Your task to perform on an android device: turn on priority inbox in the gmail app Image 0: 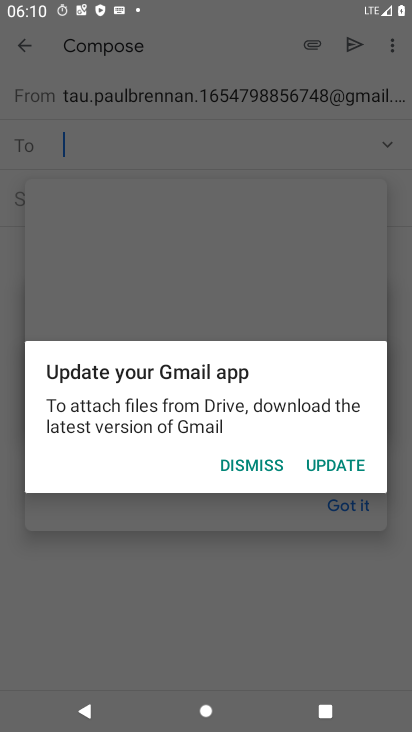
Step 0: press home button
Your task to perform on an android device: turn on priority inbox in the gmail app Image 1: 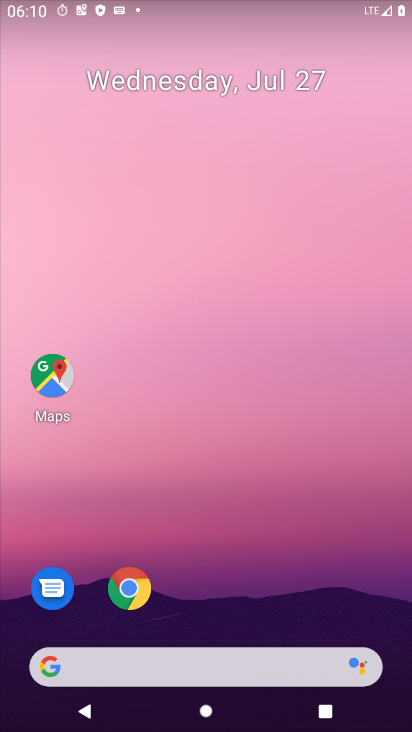
Step 1: drag from (163, 592) to (192, 22)
Your task to perform on an android device: turn on priority inbox in the gmail app Image 2: 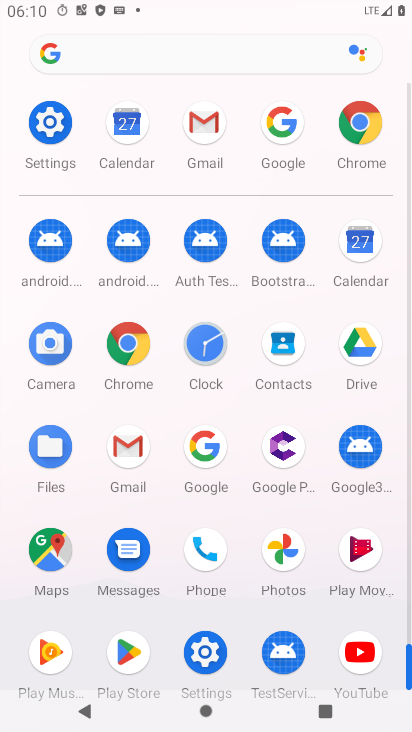
Step 2: click (129, 439)
Your task to perform on an android device: turn on priority inbox in the gmail app Image 3: 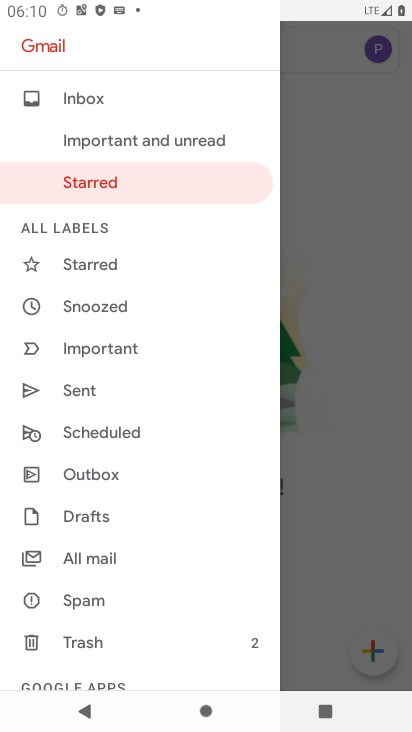
Step 3: drag from (137, 652) to (201, 186)
Your task to perform on an android device: turn on priority inbox in the gmail app Image 4: 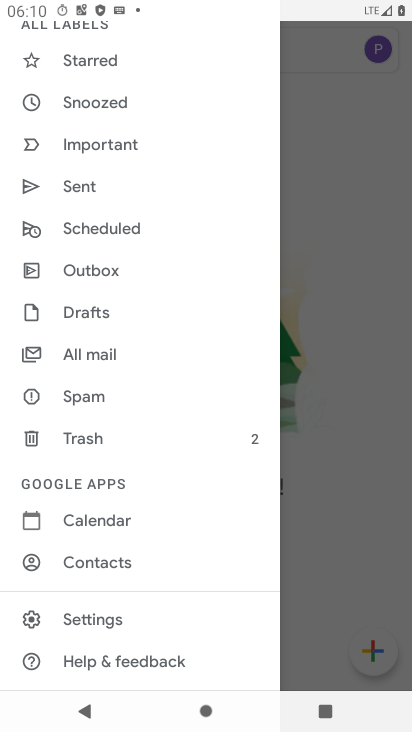
Step 4: click (105, 614)
Your task to perform on an android device: turn on priority inbox in the gmail app Image 5: 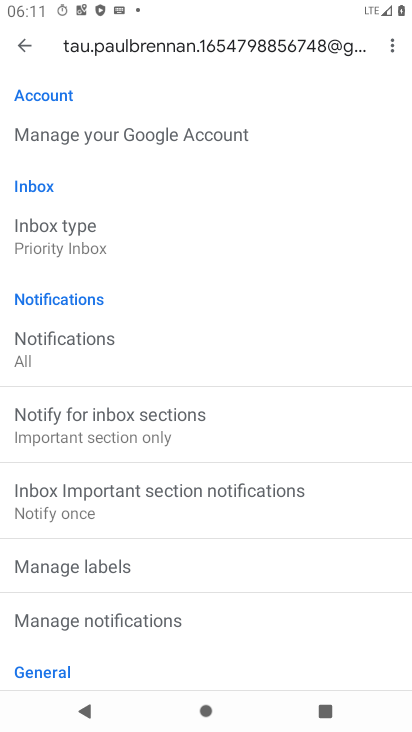
Step 5: task complete